Your task to perform on an android device: Search for sushi restaurants on Maps Image 0: 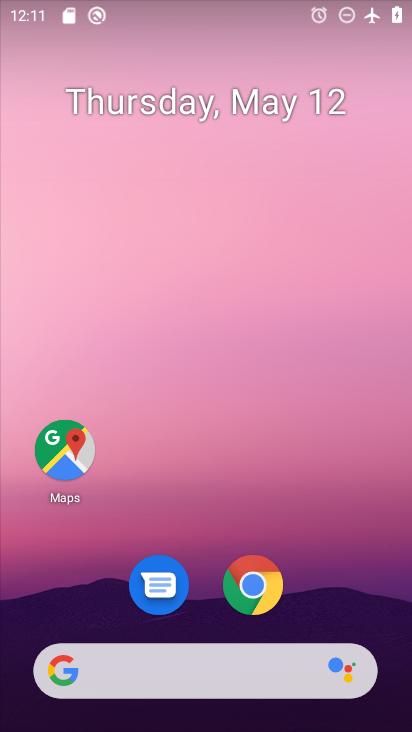
Step 0: click (83, 454)
Your task to perform on an android device: Search for sushi restaurants on Maps Image 1: 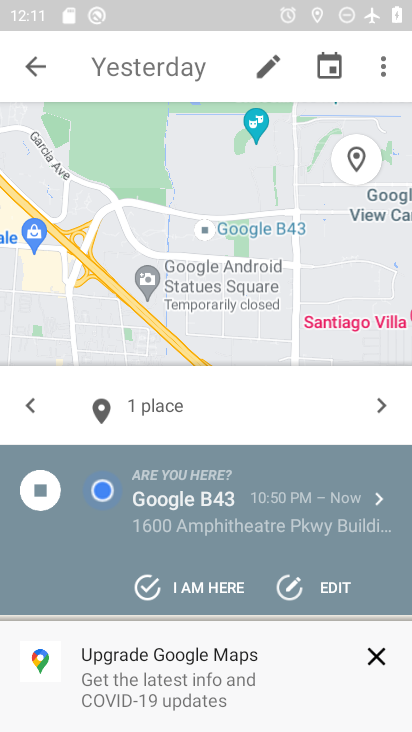
Step 1: click (32, 60)
Your task to perform on an android device: Search for sushi restaurants on Maps Image 2: 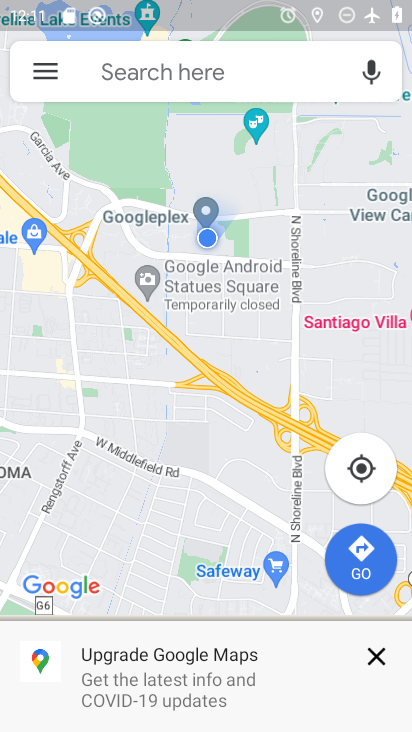
Step 2: click (136, 64)
Your task to perform on an android device: Search for sushi restaurants on Maps Image 3: 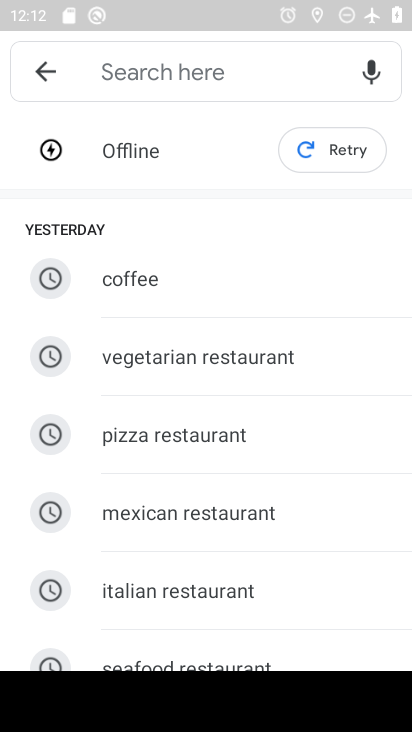
Step 3: drag from (188, 627) to (248, 362)
Your task to perform on an android device: Search for sushi restaurants on Maps Image 4: 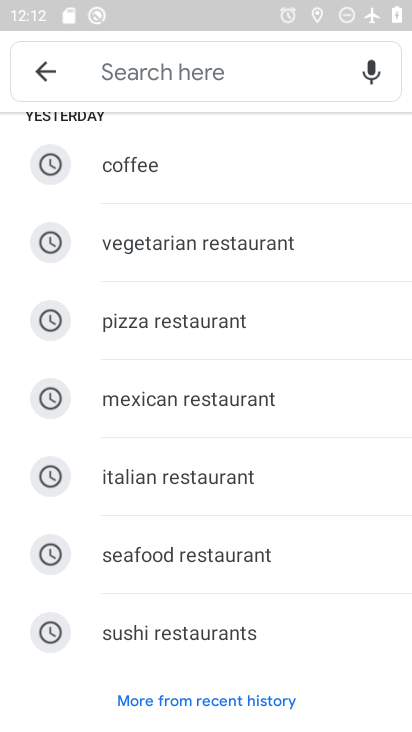
Step 4: click (188, 620)
Your task to perform on an android device: Search for sushi restaurants on Maps Image 5: 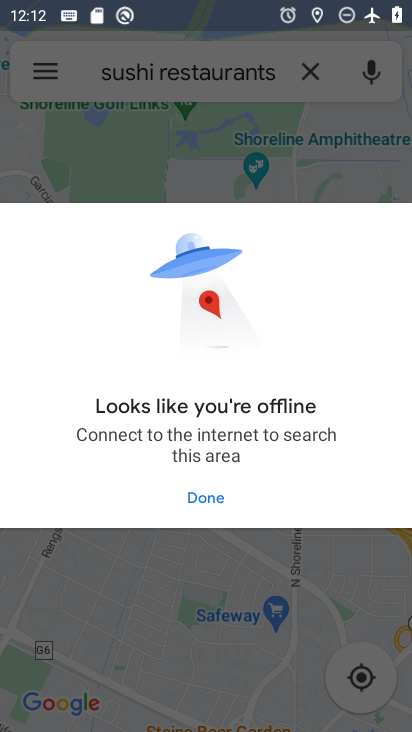
Step 5: task complete